Your task to perform on an android device: Go to display settings Image 0: 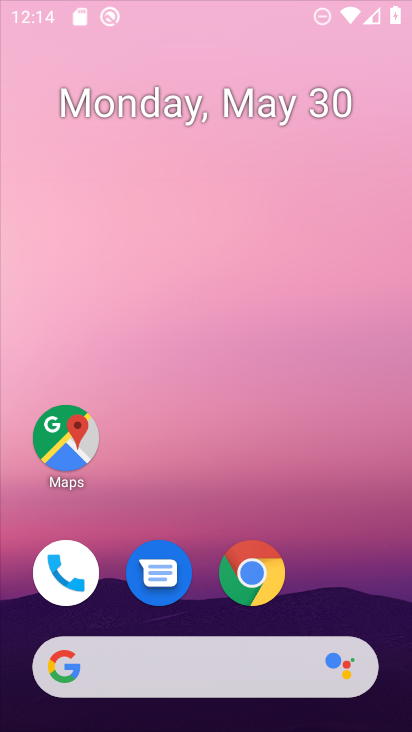
Step 0: press home button
Your task to perform on an android device: Go to display settings Image 1: 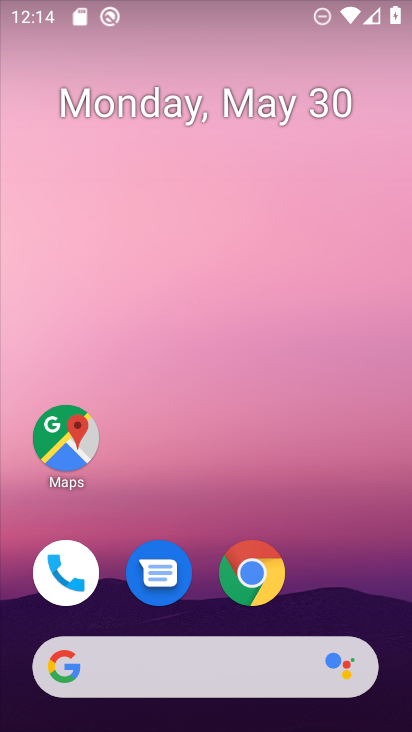
Step 1: drag from (314, 550) to (265, 165)
Your task to perform on an android device: Go to display settings Image 2: 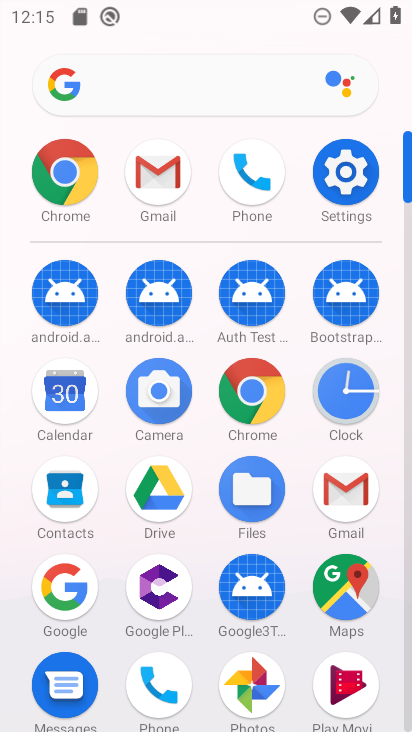
Step 2: click (336, 185)
Your task to perform on an android device: Go to display settings Image 3: 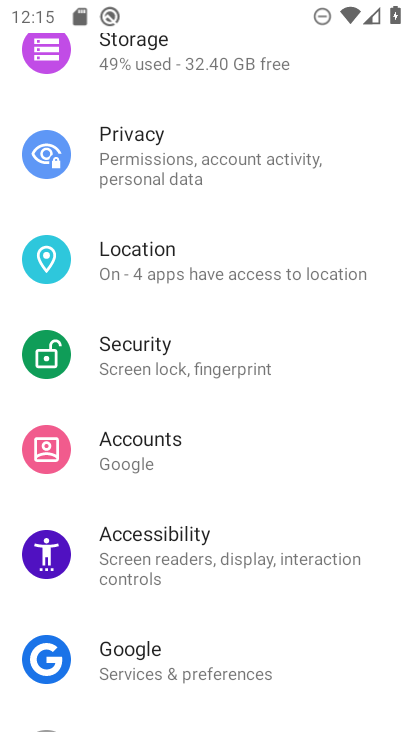
Step 3: drag from (223, 221) to (229, 603)
Your task to perform on an android device: Go to display settings Image 4: 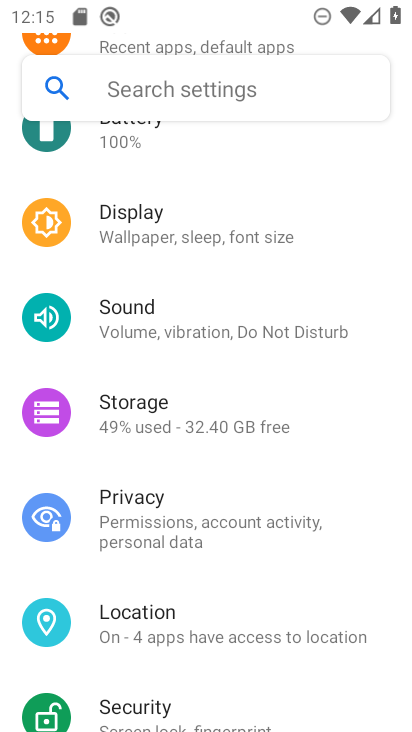
Step 4: click (117, 232)
Your task to perform on an android device: Go to display settings Image 5: 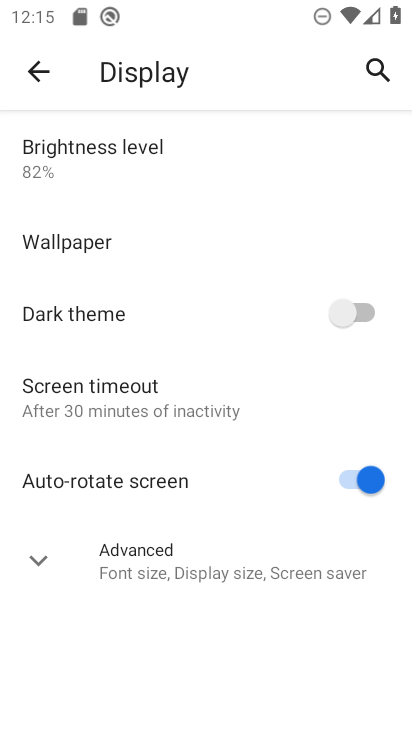
Step 5: task complete